Your task to perform on an android device: Go to location settings Image 0: 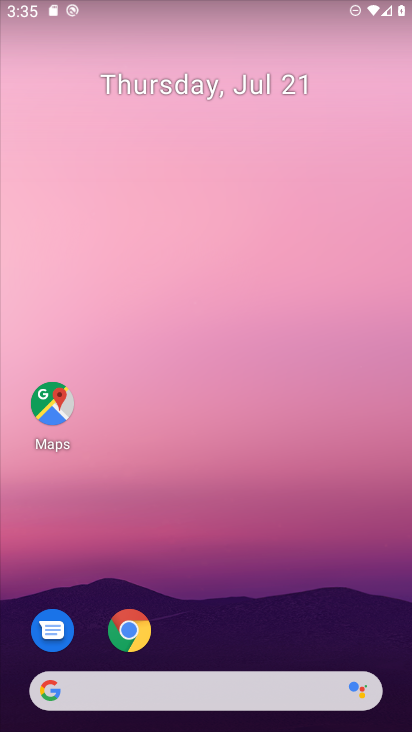
Step 0: drag from (215, 594) to (244, 88)
Your task to perform on an android device: Go to location settings Image 1: 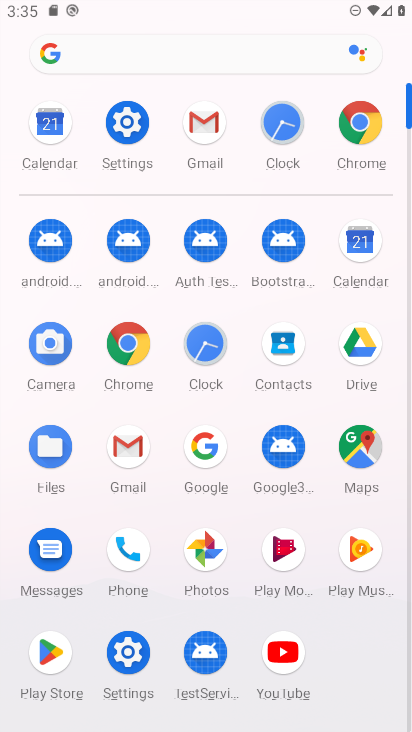
Step 1: click (113, 110)
Your task to perform on an android device: Go to location settings Image 2: 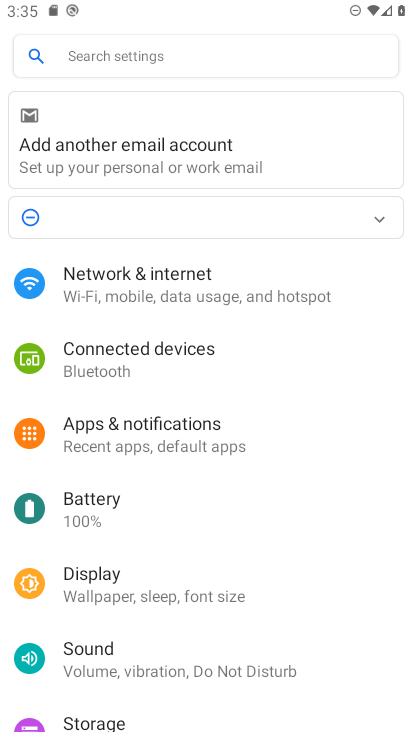
Step 2: drag from (89, 693) to (181, 167)
Your task to perform on an android device: Go to location settings Image 3: 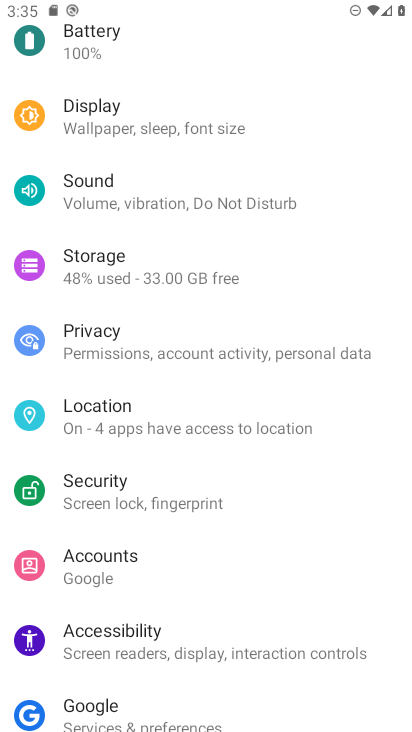
Step 3: click (104, 410)
Your task to perform on an android device: Go to location settings Image 4: 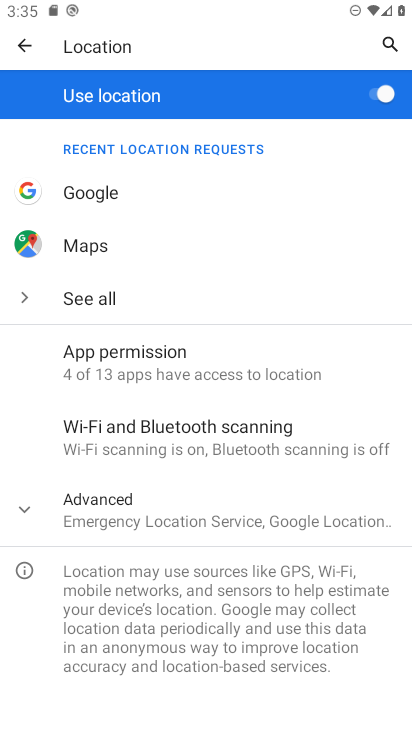
Step 4: task complete